Your task to perform on an android device: Open internet settings Image 0: 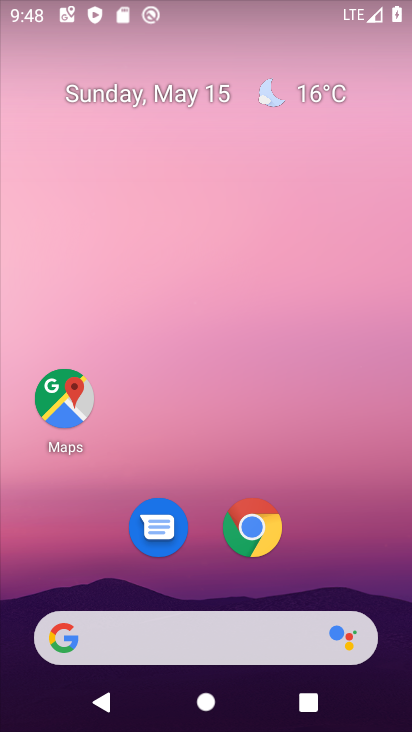
Step 0: drag from (354, 605) to (390, 109)
Your task to perform on an android device: Open internet settings Image 1: 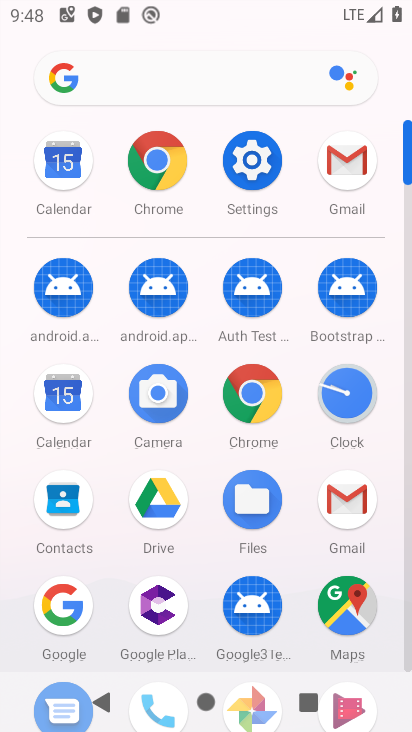
Step 1: click (249, 165)
Your task to perform on an android device: Open internet settings Image 2: 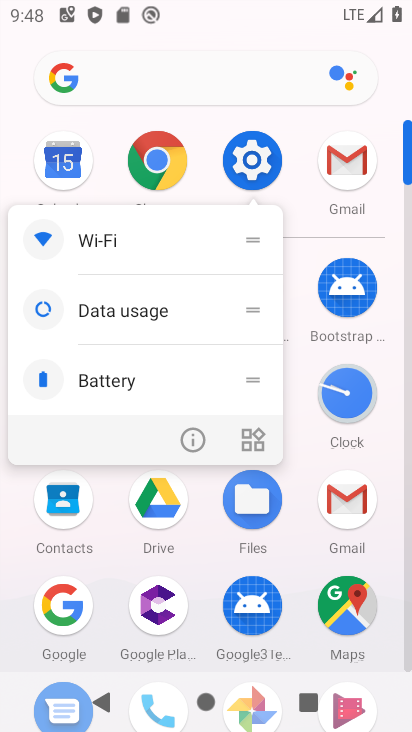
Step 2: click (243, 163)
Your task to perform on an android device: Open internet settings Image 3: 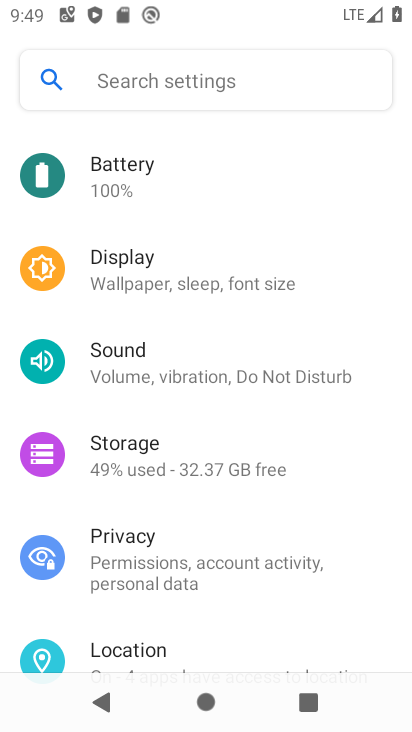
Step 3: drag from (329, 557) to (368, 704)
Your task to perform on an android device: Open internet settings Image 4: 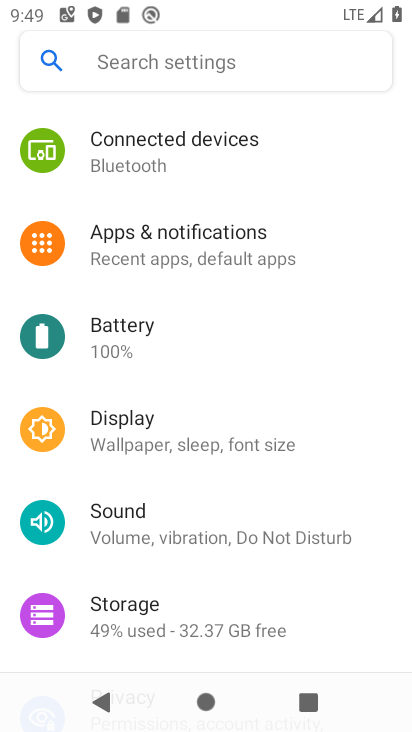
Step 4: drag from (330, 249) to (355, 564)
Your task to perform on an android device: Open internet settings Image 5: 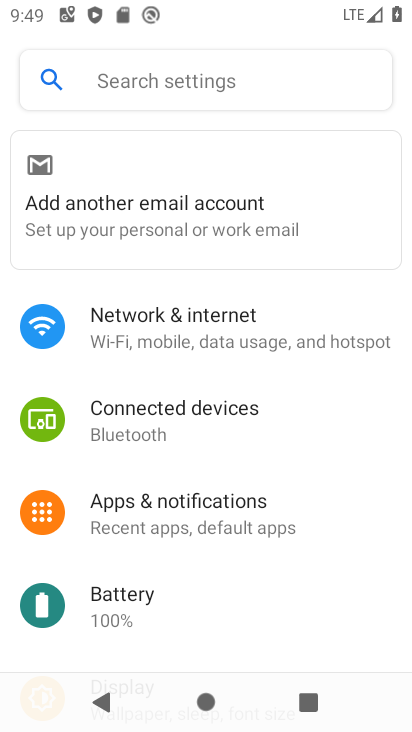
Step 5: click (158, 316)
Your task to perform on an android device: Open internet settings Image 6: 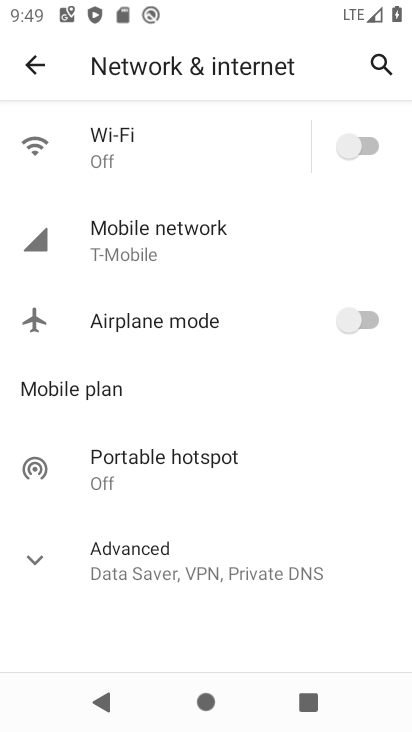
Step 6: task complete